Your task to perform on an android device: empty trash in google photos Image 0: 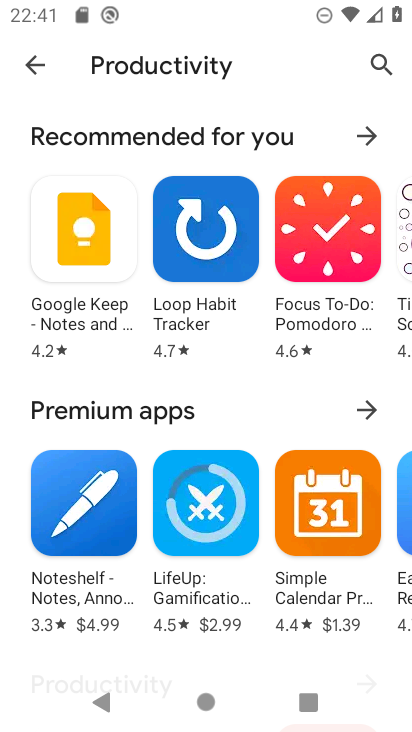
Step 0: press home button
Your task to perform on an android device: empty trash in google photos Image 1: 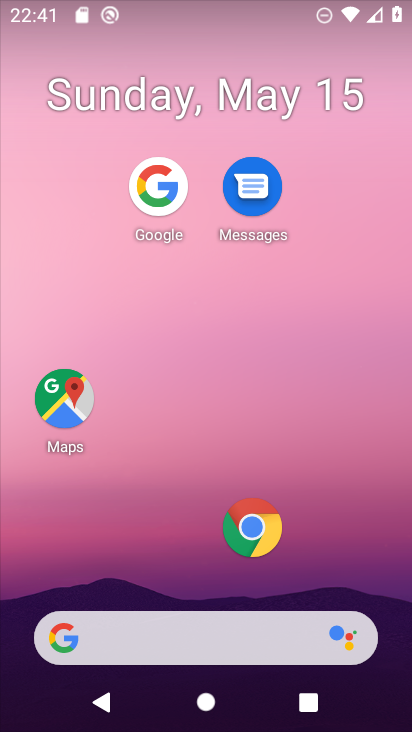
Step 1: drag from (152, 639) to (285, 157)
Your task to perform on an android device: empty trash in google photos Image 2: 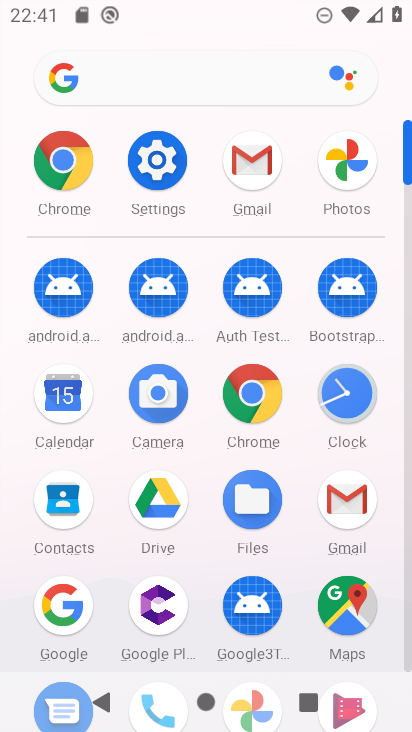
Step 2: drag from (208, 593) to (314, 357)
Your task to perform on an android device: empty trash in google photos Image 3: 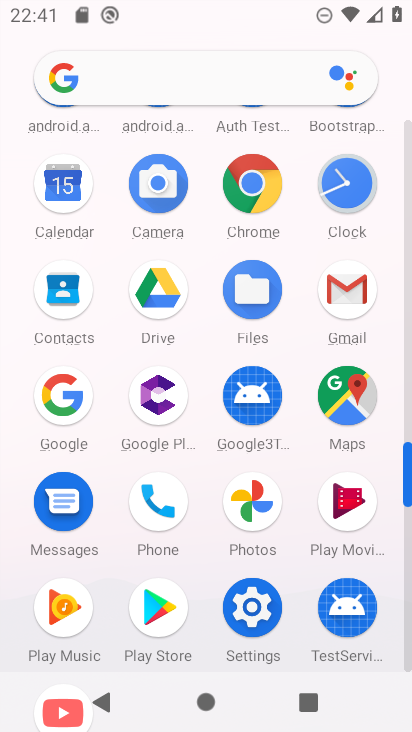
Step 3: click (258, 561)
Your task to perform on an android device: empty trash in google photos Image 4: 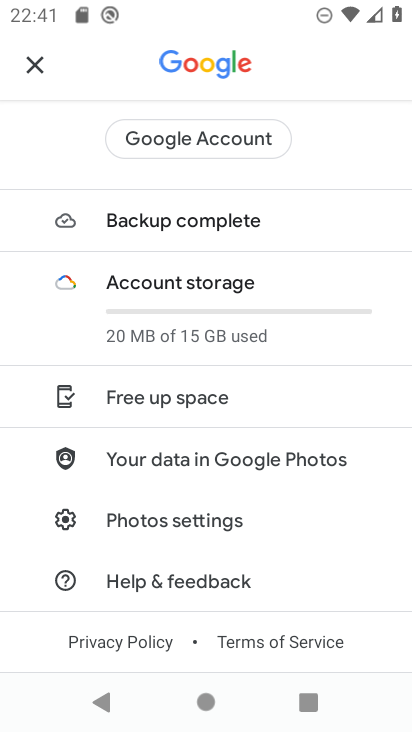
Step 4: click (32, 66)
Your task to perform on an android device: empty trash in google photos Image 5: 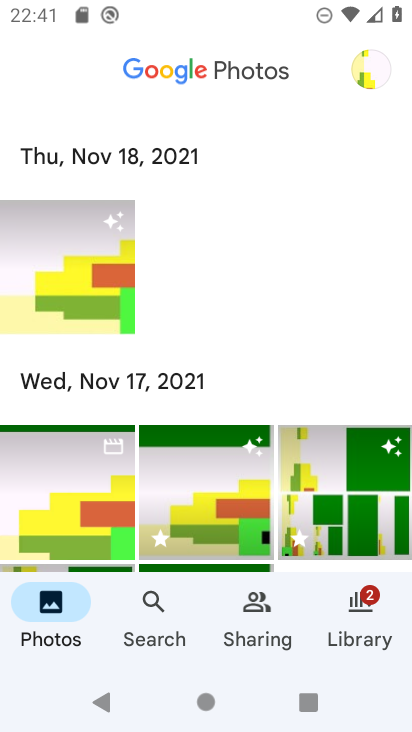
Step 5: click (369, 629)
Your task to perform on an android device: empty trash in google photos Image 6: 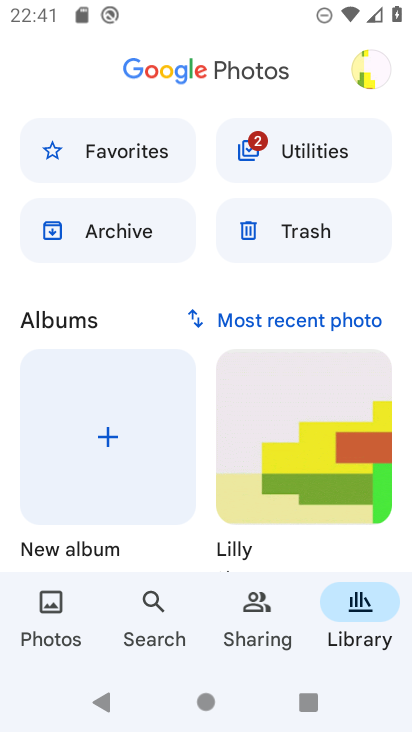
Step 6: click (291, 236)
Your task to perform on an android device: empty trash in google photos Image 7: 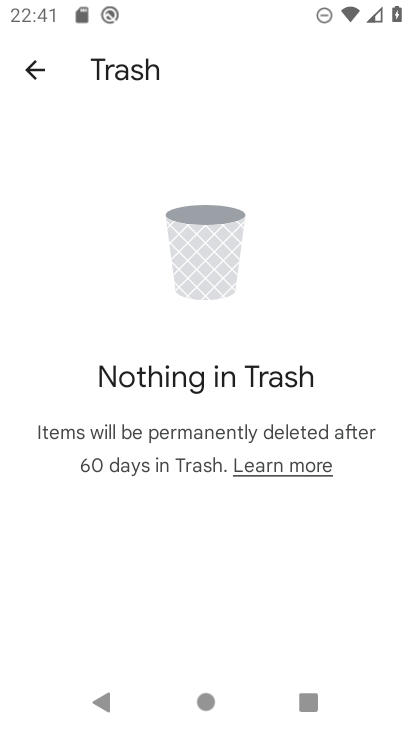
Step 7: task complete